Your task to perform on an android device: change keyboard looks Image 0: 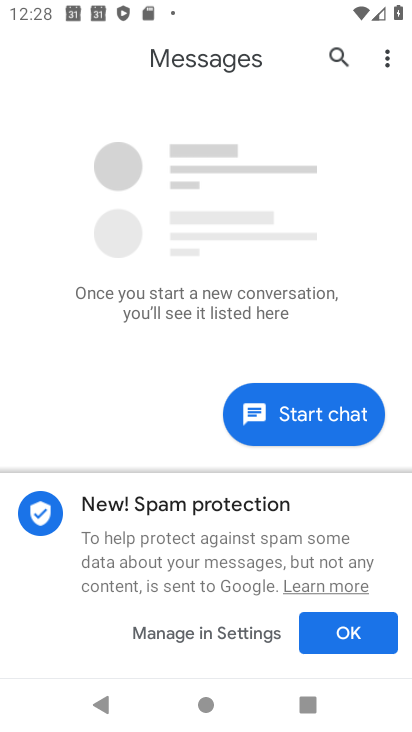
Step 0: drag from (251, 568) to (351, 66)
Your task to perform on an android device: change keyboard looks Image 1: 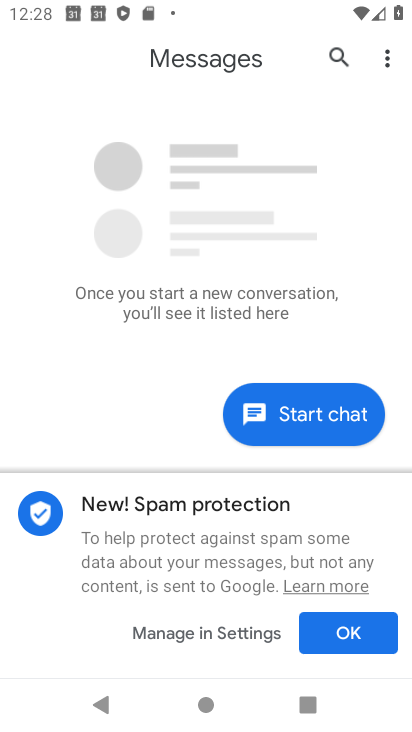
Step 1: press home button
Your task to perform on an android device: change keyboard looks Image 2: 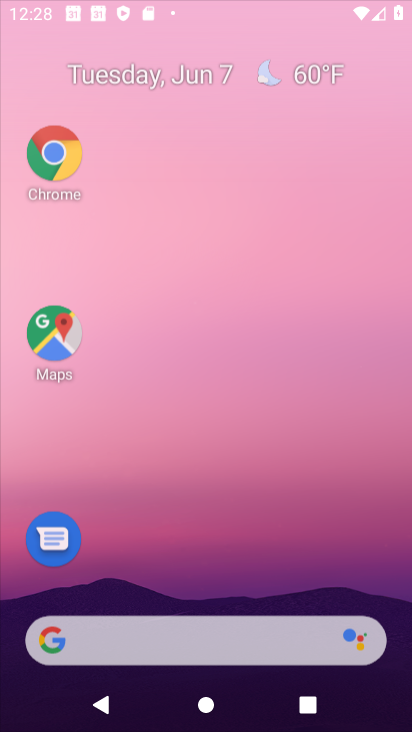
Step 2: drag from (244, 25) to (2, 452)
Your task to perform on an android device: change keyboard looks Image 3: 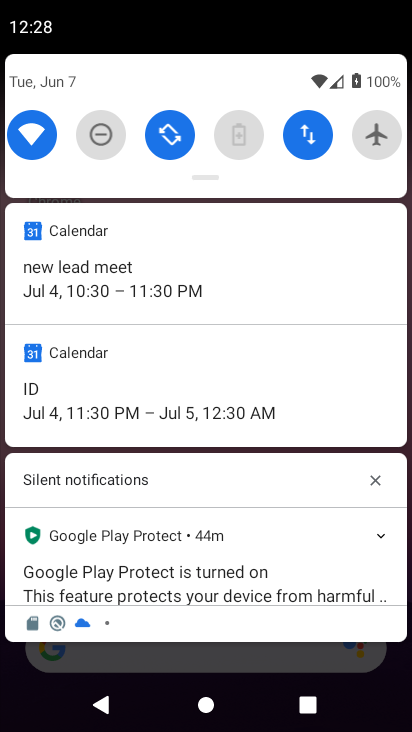
Step 3: drag from (177, 581) to (229, 65)
Your task to perform on an android device: change keyboard looks Image 4: 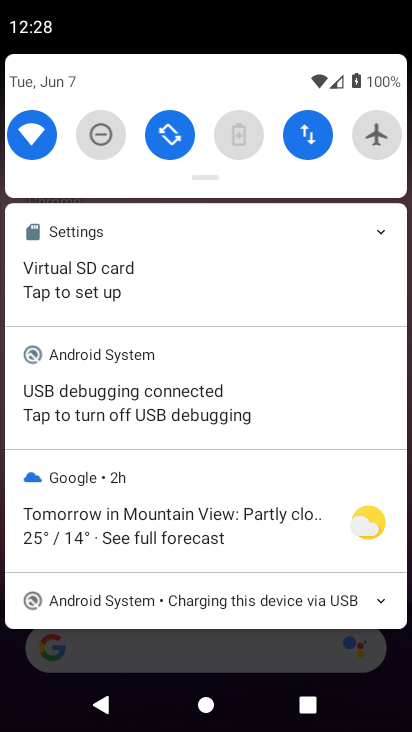
Step 4: press back button
Your task to perform on an android device: change keyboard looks Image 5: 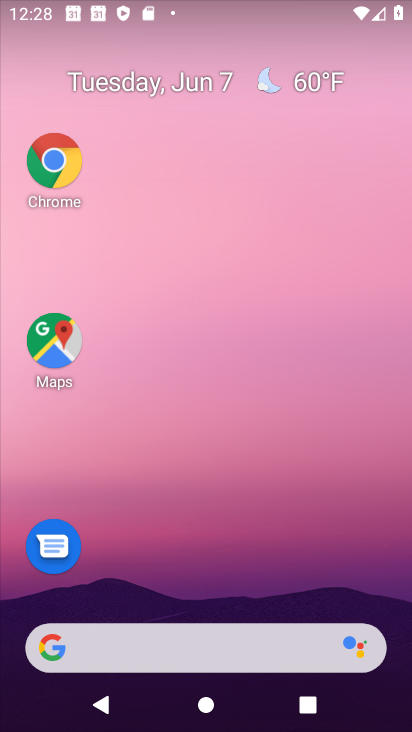
Step 5: drag from (238, 643) to (335, 32)
Your task to perform on an android device: change keyboard looks Image 6: 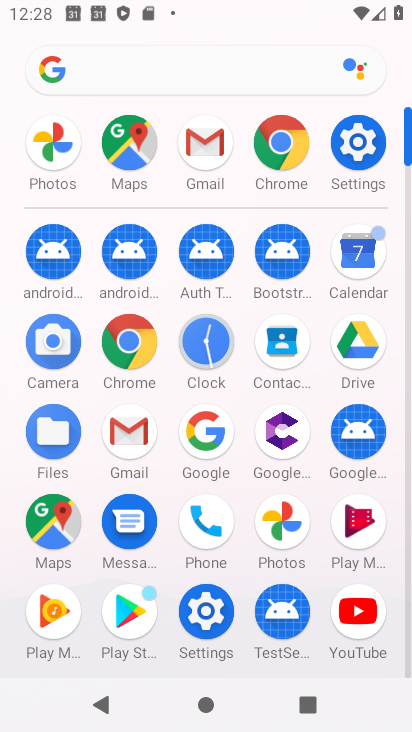
Step 6: click (355, 137)
Your task to perform on an android device: change keyboard looks Image 7: 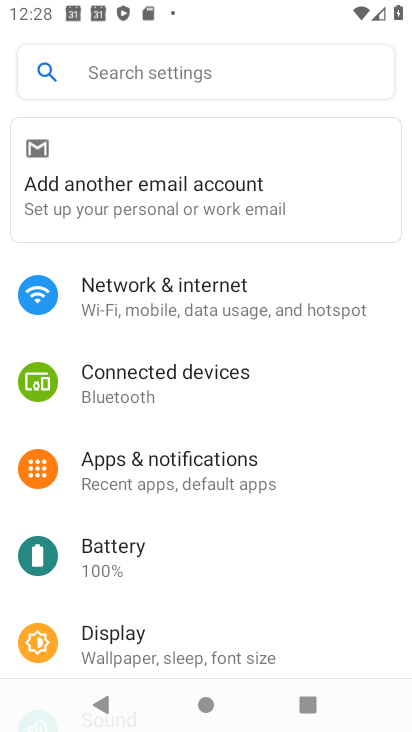
Step 7: drag from (214, 576) to (301, 51)
Your task to perform on an android device: change keyboard looks Image 8: 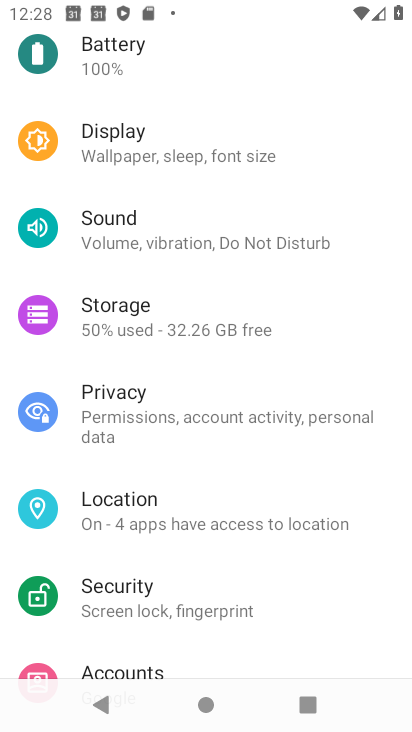
Step 8: drag from (236, 514) to (273, 138)
Your task to perform on an android device: change keyboard looks Image 9: 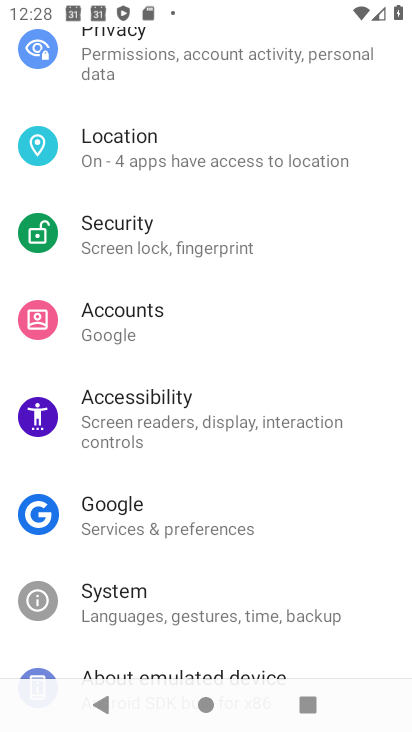
Step 9: drag from (252, 577) to (325, 70)
Your task to perform on an android device: change keyboard looks Image 10: 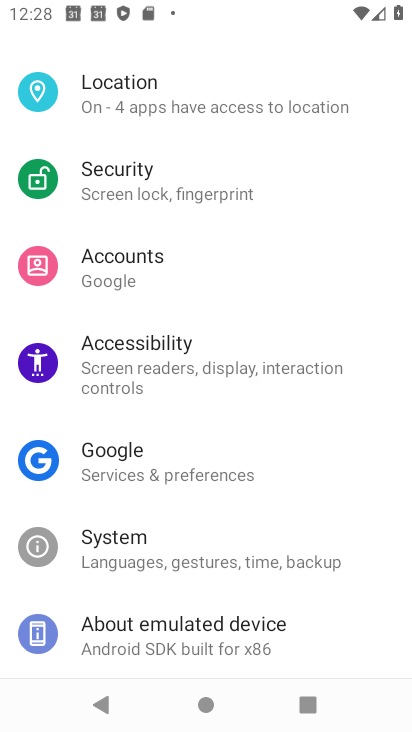
Step 10: click (128, 562)
Your task to perform on an android device: change keyboard looks Image 11: 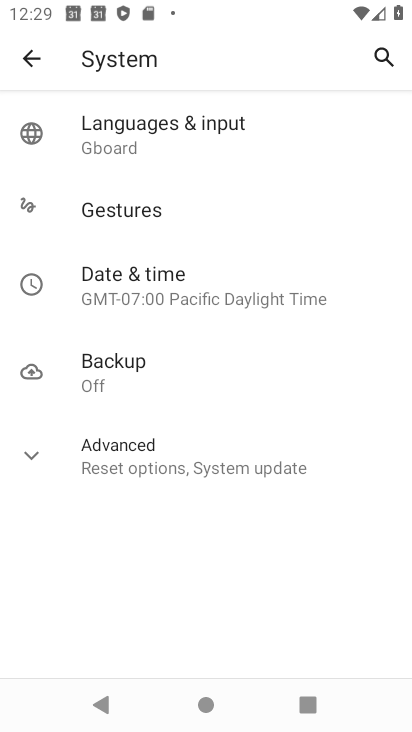
Step 11: click (235, 142)
Your task to perform on an android device: change keyboard looks Image 12: 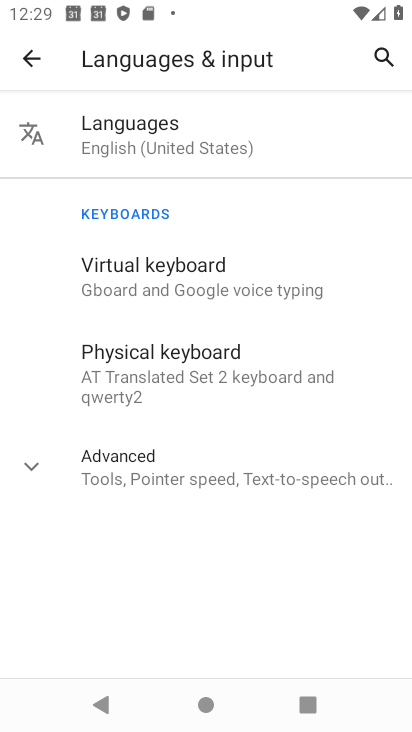
Step 12: click (194, 261)
Your task to perform on an android device: change keyboard looks Image 13: 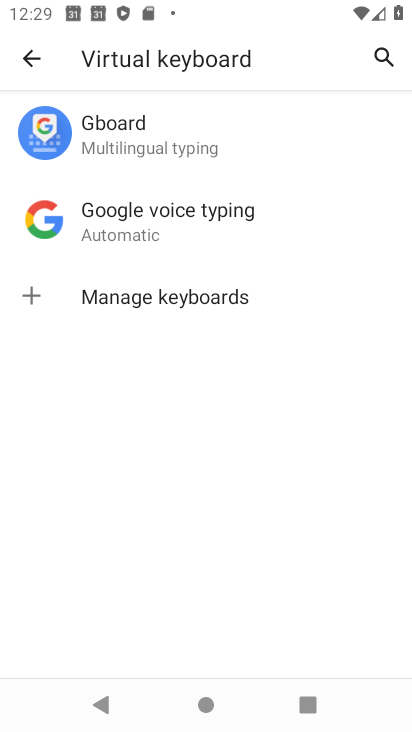
Step 13: click (170, 154)
Your task to perform on an android device: change keyboard looks Image 14: 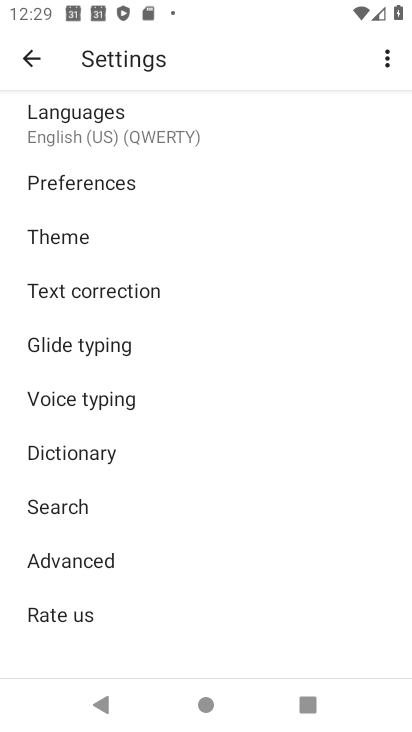
Step 14: click (128, 236)
Your task to perform on an android device: change keyboard looks Image 15: 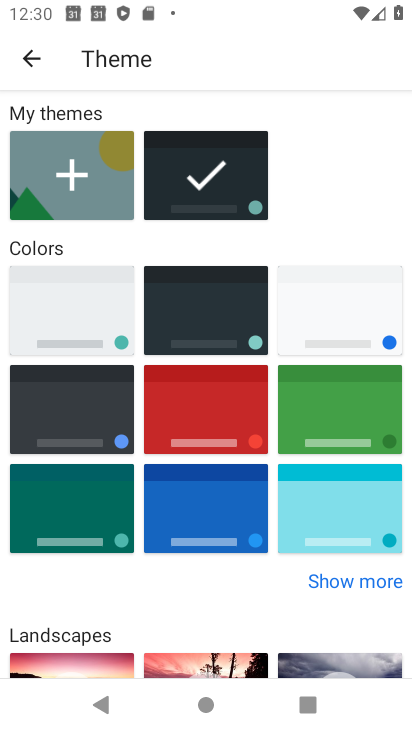
Step 15: click (350, 335)
Your task to perform on an android device: change keyboard looks Image 16: 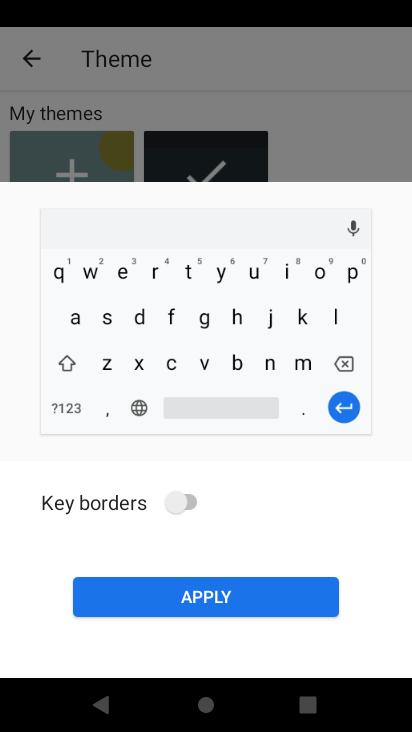
Step 16: click (148, 592)
Your task to perform on an android device: change keyboard looks Image 17: 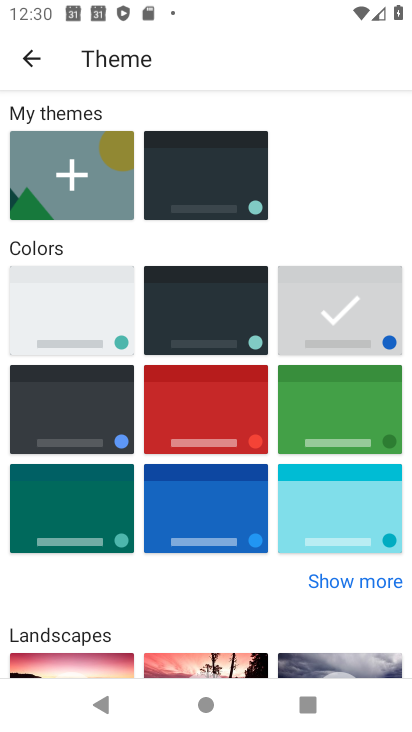
Step 17: task complete